Your task to perform on an android device: Is it going to rain today? Image 0: 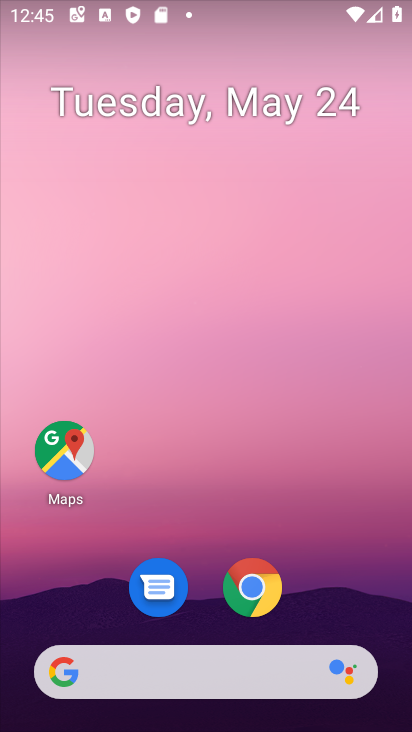
Step 0: click (130, 676)
Your task to perform on an android device: Is it going to rain today? Image 1: 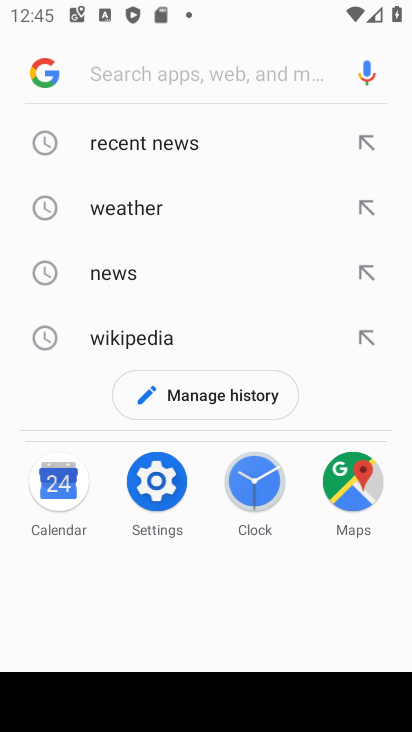
Step 1: type "Is it going to rain today?"
Your task to perform on an android device: Is it going to rain today? Image 2: 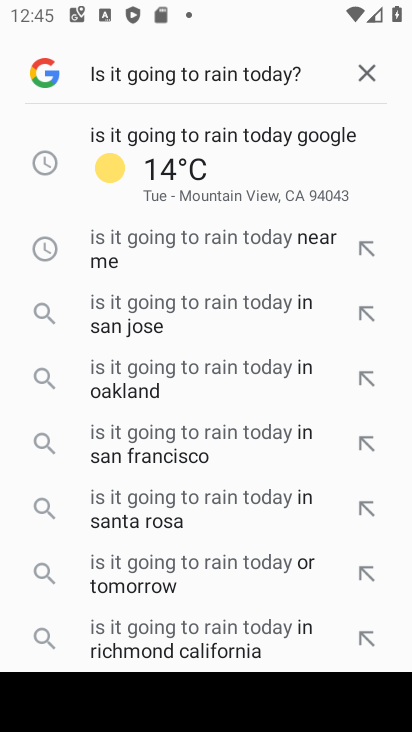
Step 2: click (290, 140)
Your task to perform on an android device: Is it going to rain today? Image 3: 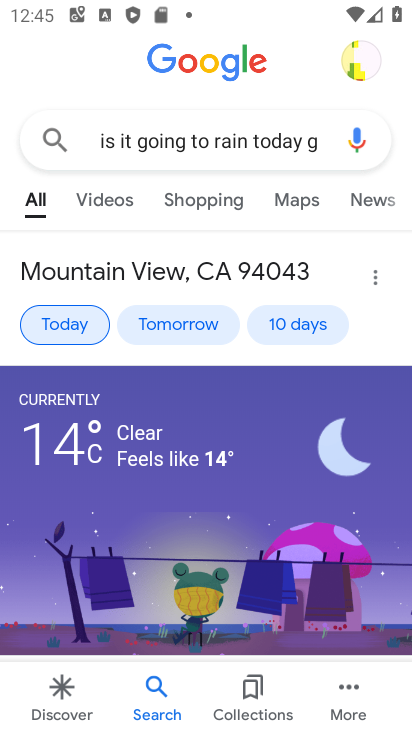
Step 3: task complete